Your task to perform on an android device: Search for vegetarian restaurants on Maps Image 0: 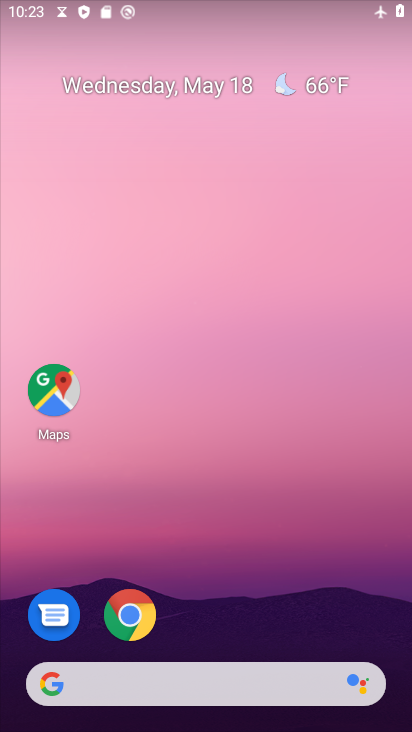
Step 0: drag from (281, 554) to (217, 23)
Your task to perform on an android device: Search for vegetarian restaurants on Maps Image 1: 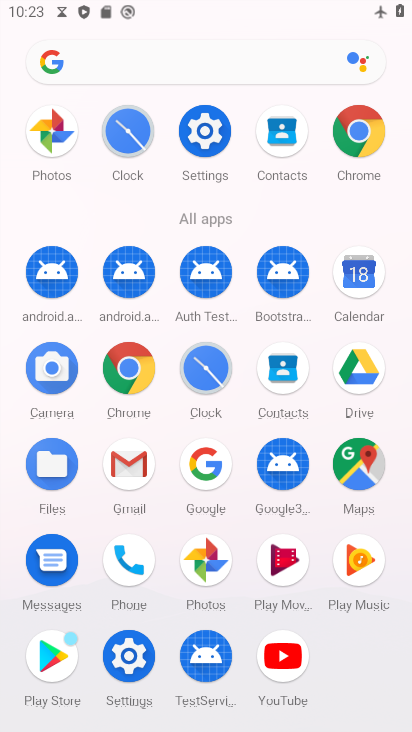
Step 1: click (358, 459)
Your task to perform on an android device: Search for vegetarian restaurants on Maps Image 2: 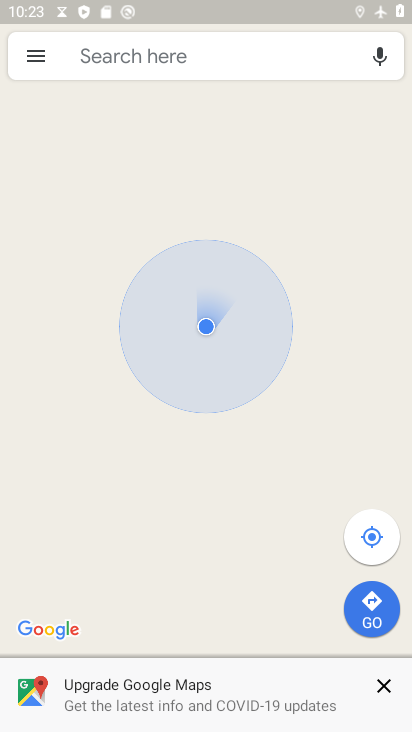
Step 2: click (210, 51)
Your task to perform on an android device: Search for vegetarian restaurants on Maps Image 3: 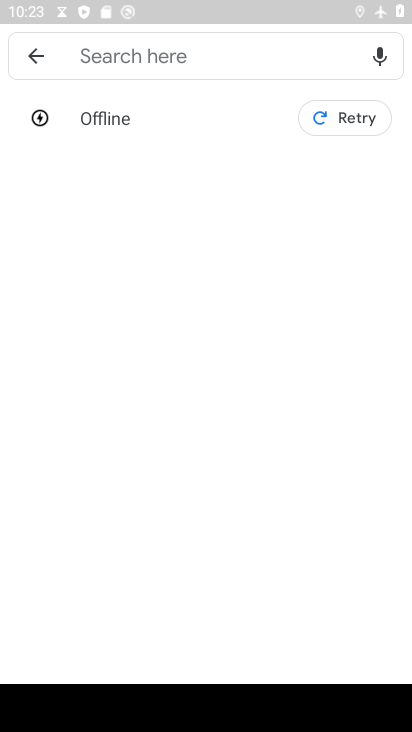
Step 3: type "vegetarian restaurants"
Your task to perform on an android device: Search for vegetarian restaurants on Maps Image 4: 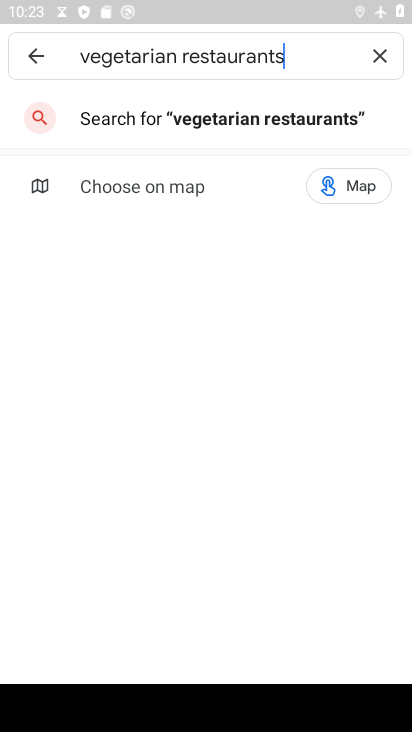
Step 4: type ""
Your task to perform on an android device: Search for vegetarian restaurants on Maps Image 5: 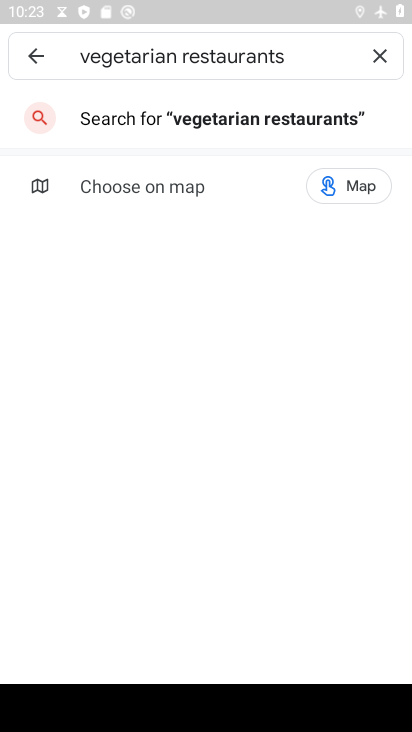
Step 5: click (234, 120)
Your task to perform on an android device: Search for vegetarian restaurants on Maps Image 6: 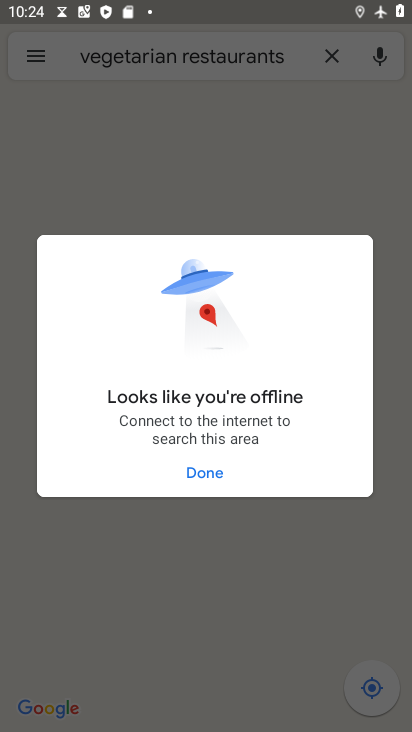
Step 6: task complete